Your task to perform on an android device: Go to Maps Image 0: 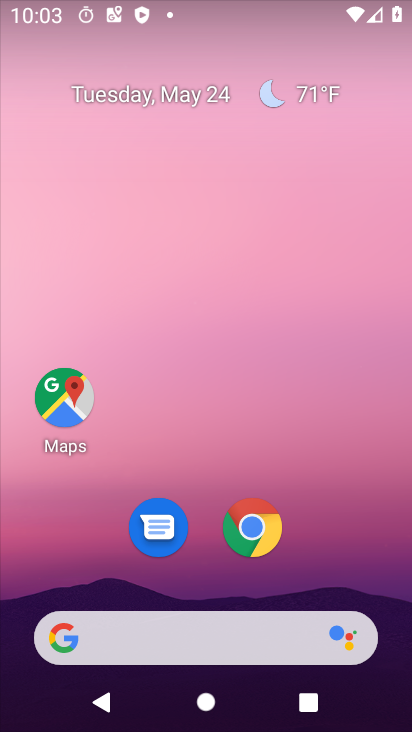
Step 0: click (59, 404)
Your task to perform on an android device: Go to Maps Image 1: 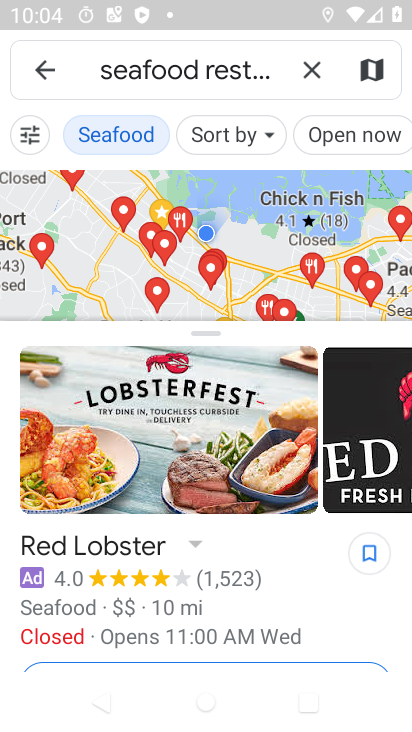
Step 1: task complete